Your task to perform on an android device: add a label to a message in the gmail app Image 0: 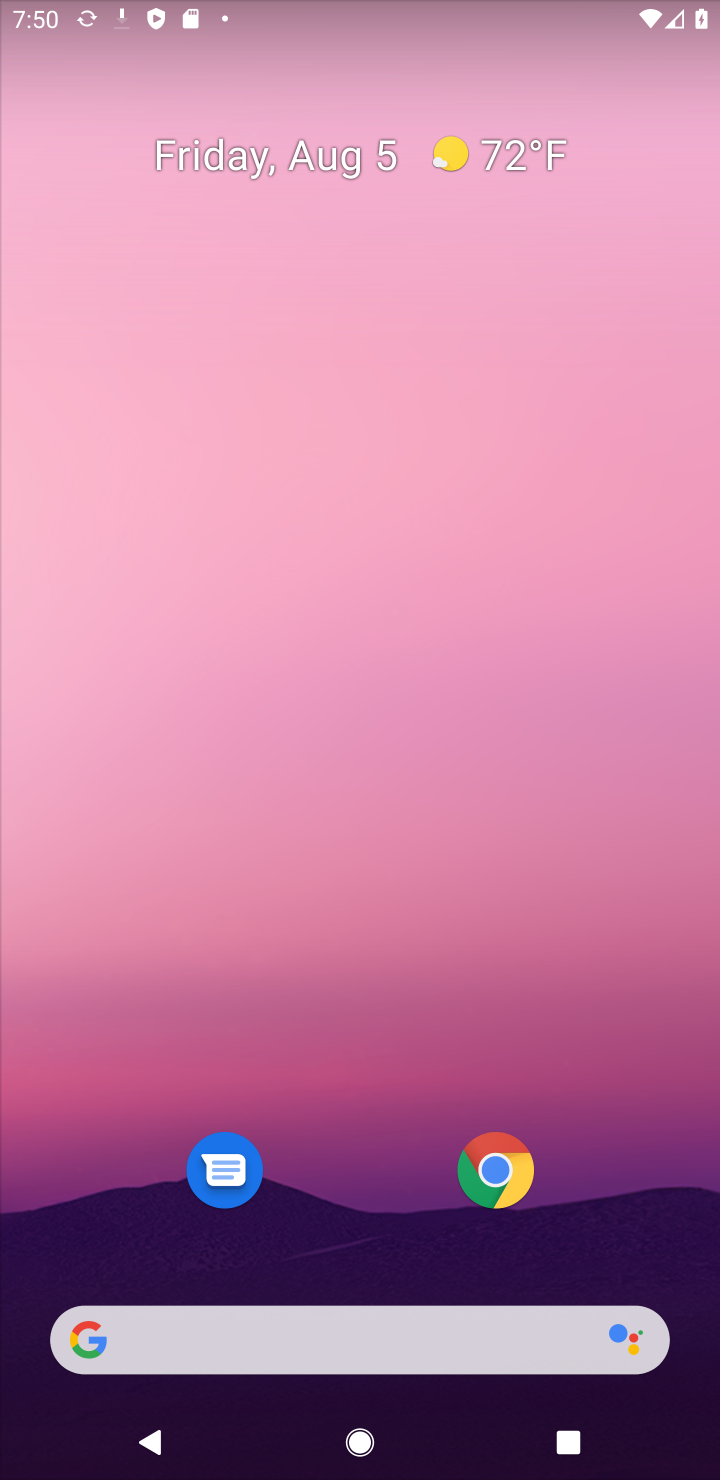
Step 0: drag from (663, 1258) to (622, 253)
Your task to perform on an android device: add a label to a message in the gmail app Image 1: 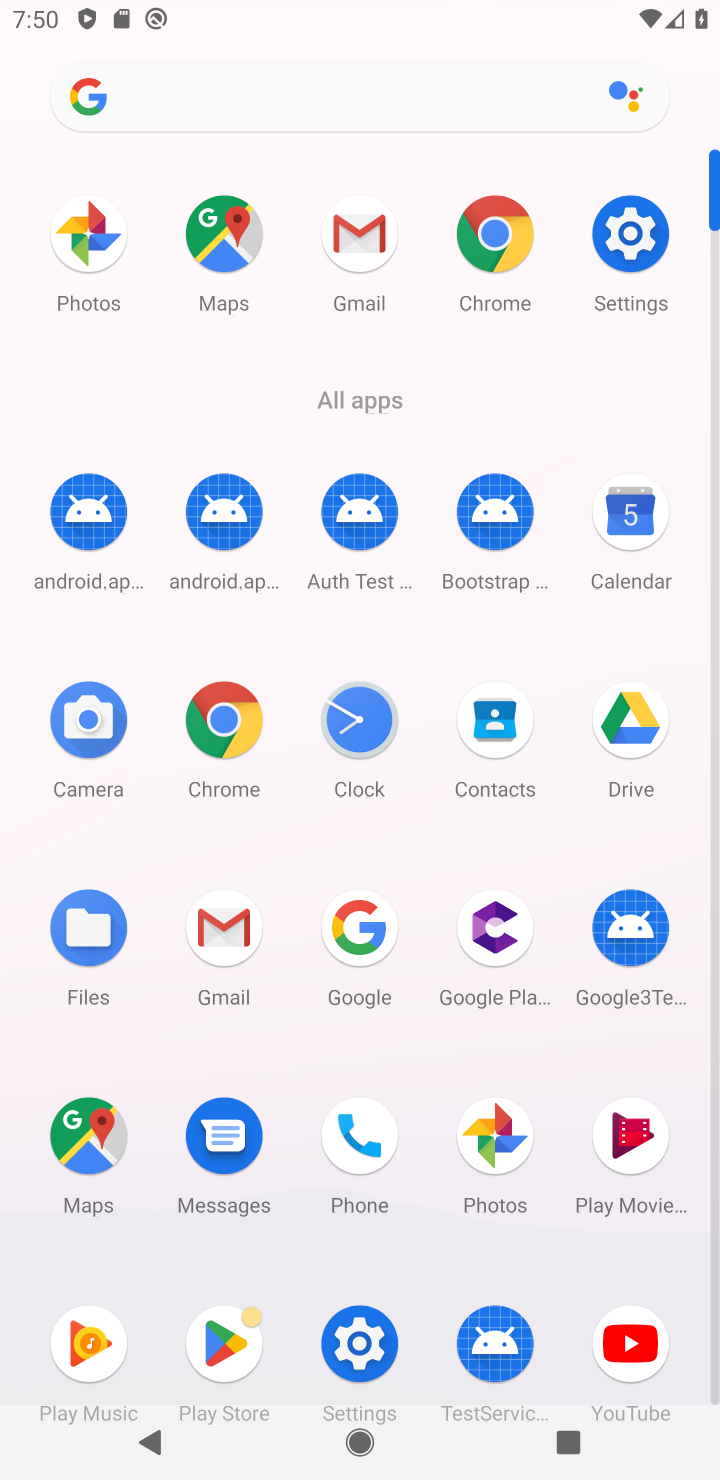
Step 1: click (221, 932)
Your task to perform on an android device: add a label to a message in the gmail app Image 2: 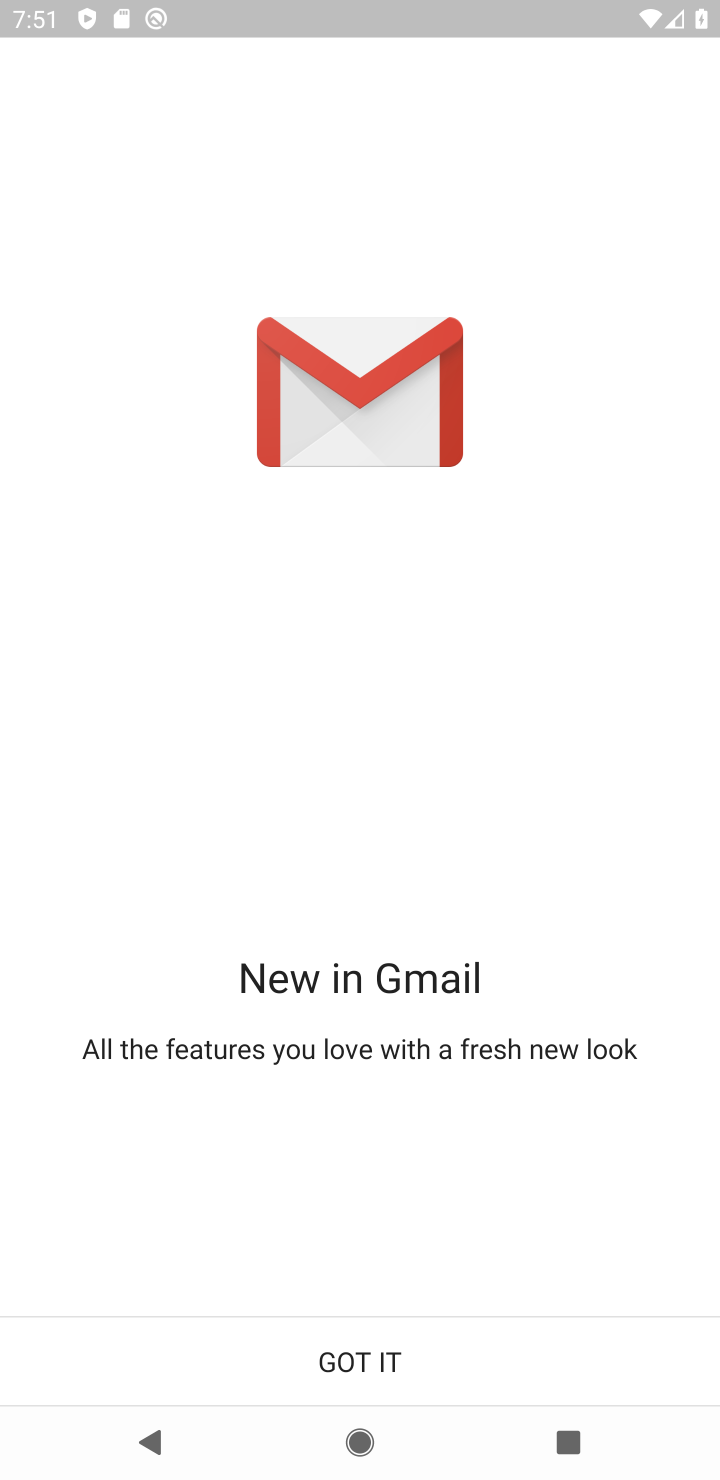
Step 2: click (343, 1376)
Your task to perform on an android device: add a label to a message in the gmail app Image 3: 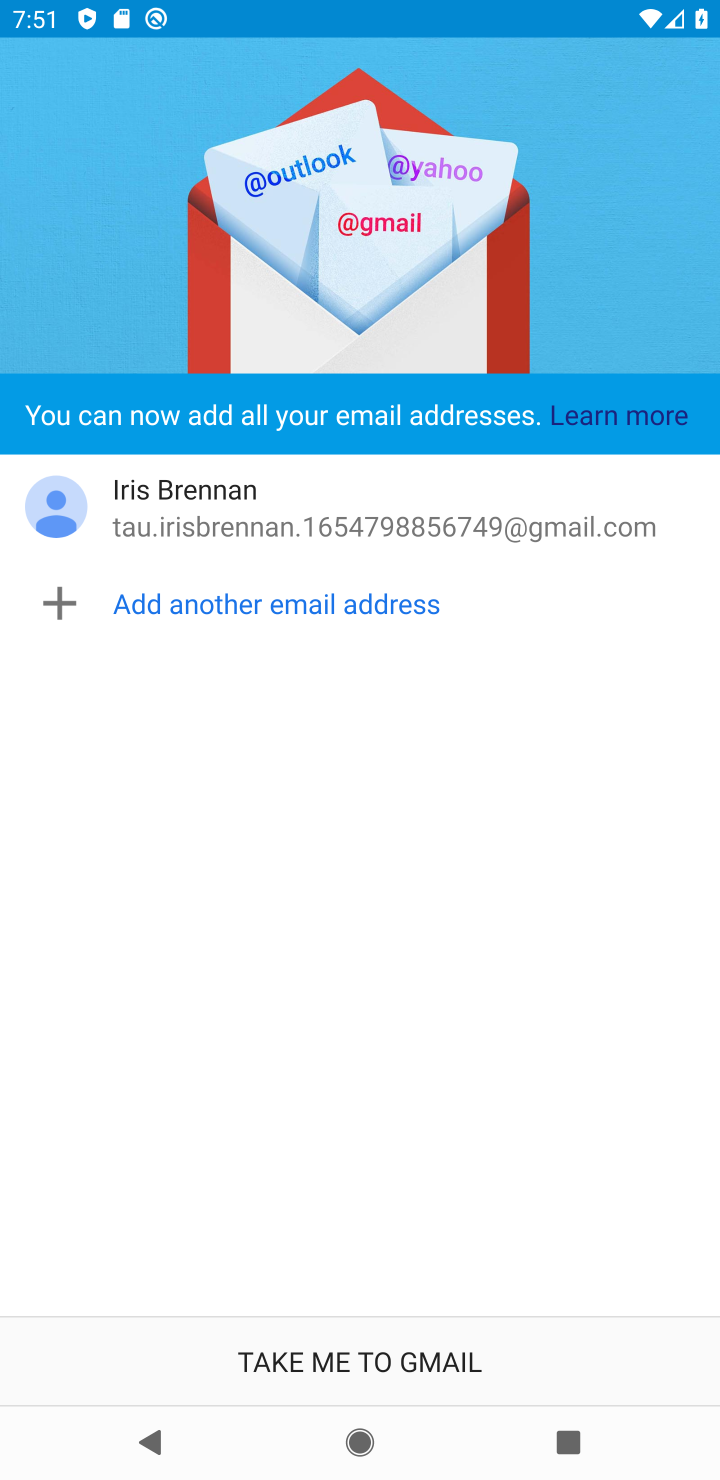
Step 3: click (372, 1336)
Your task to perform on an android device: add a label to a message in the gmail app Image 4: 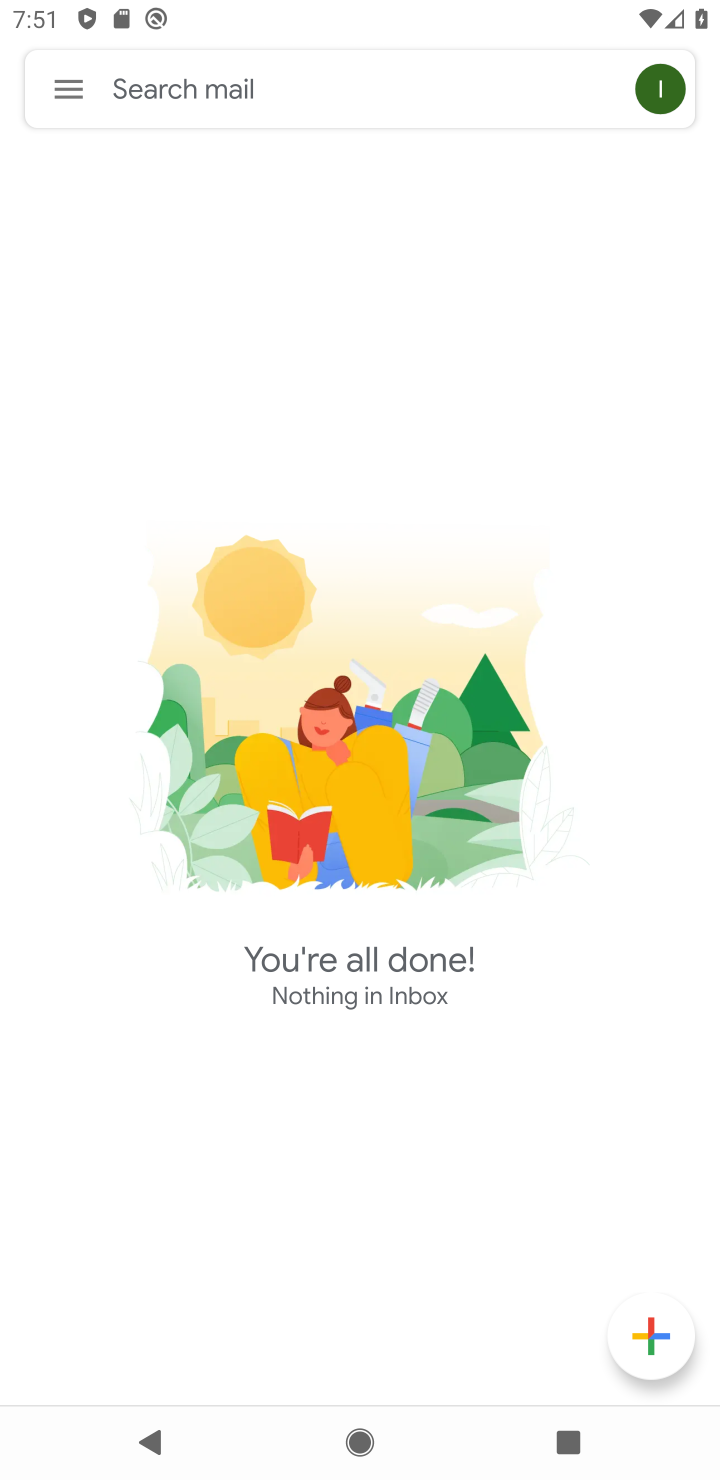
Step 4: click (60, 92)
Your task to perform on an android device: add a label to a message in the gmail app Image 5: 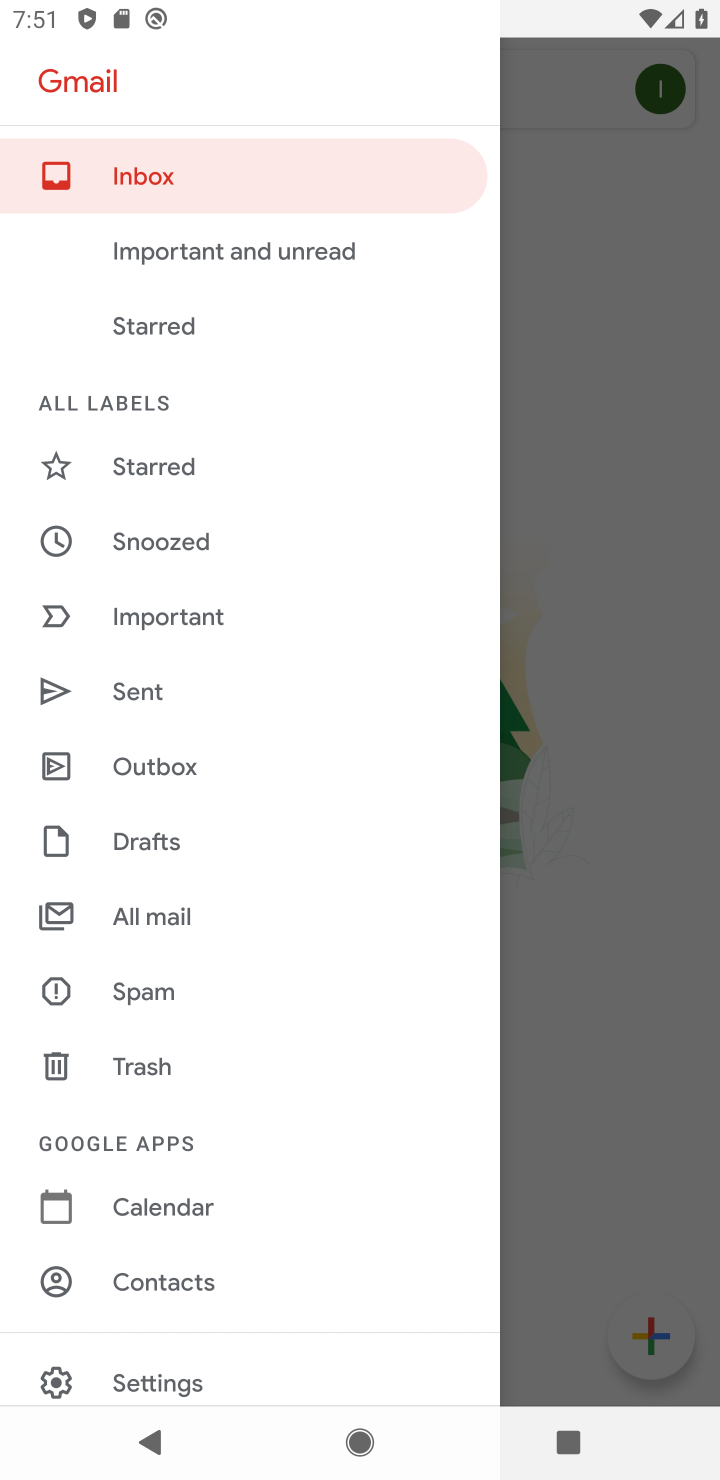
Step 5: click (170, 898)
Your task to perform on an android device: add a label to a message in the gmail app Image 6: 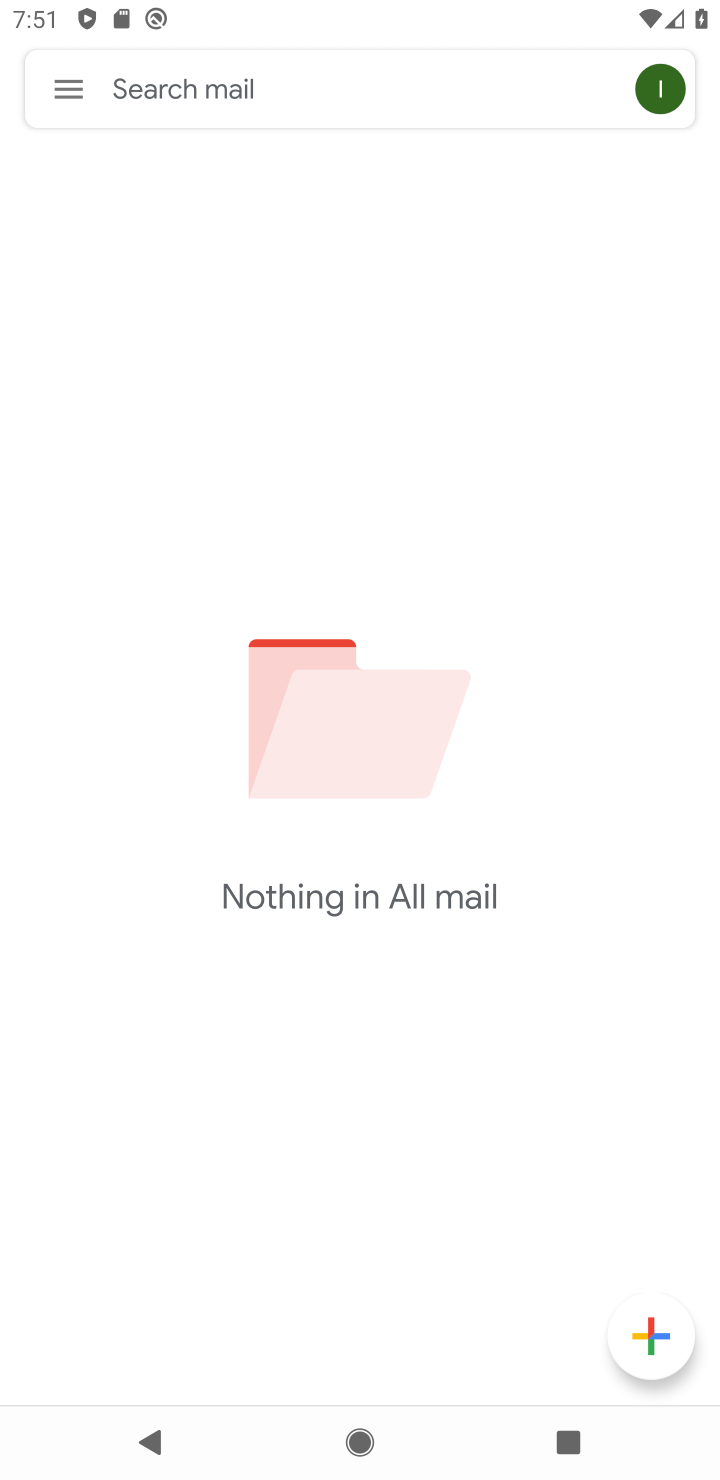
Step 6: task complete